Your task to perform on an android device: install app "TextNow: Call + Text Unlimited" Image 0: 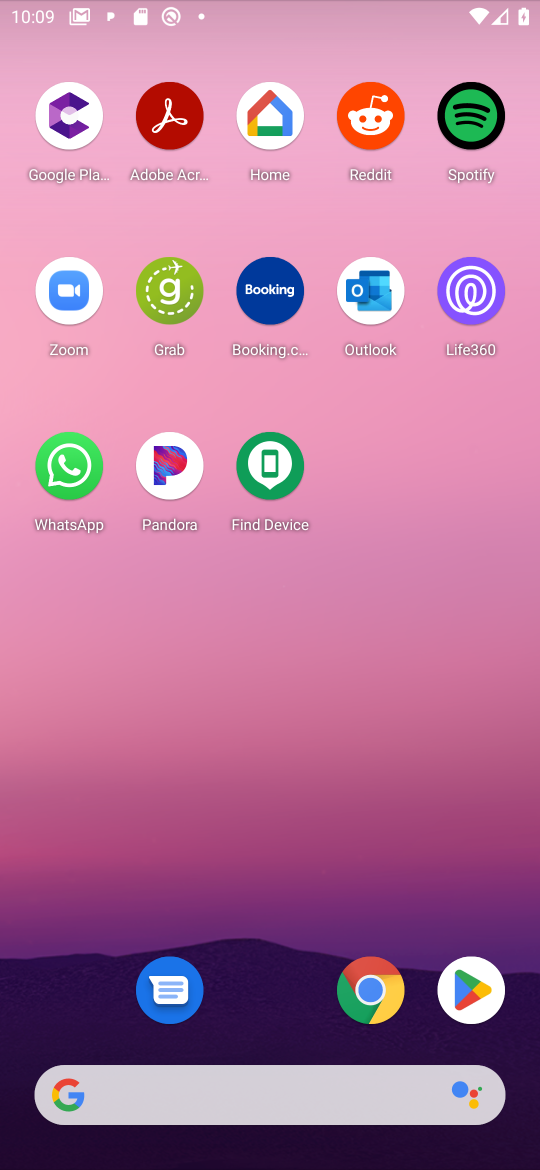
Step 0: press home button
Your task to perform on an android device: install app "TextNow: Call + Text Unlimited" Image 1: 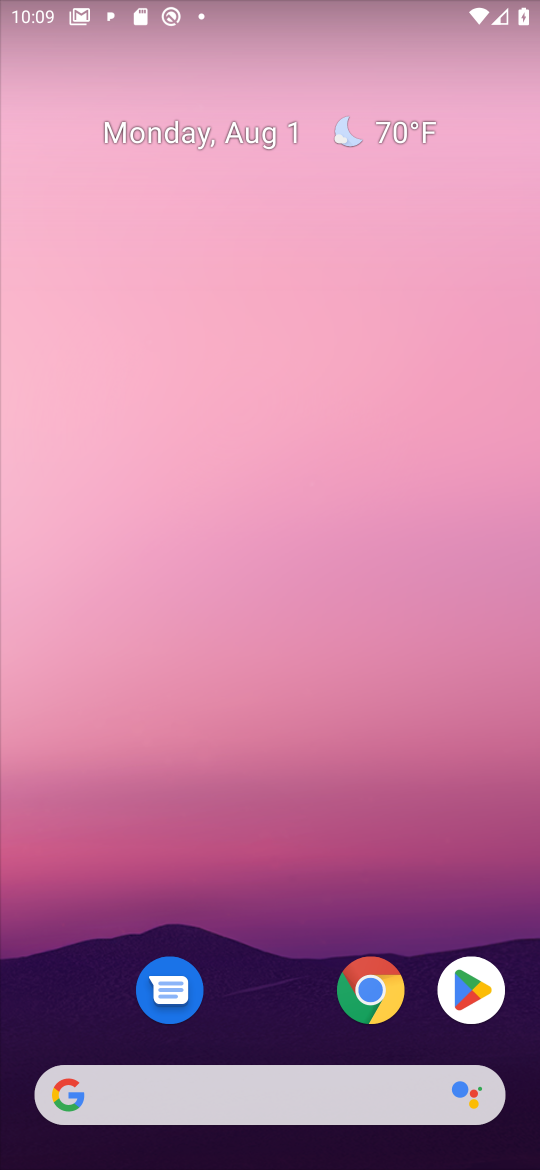
Step 1: click (473, 1009)
Your task to perform on an android device: install app "TextNow: Call + Text Unlimited" Image 2: 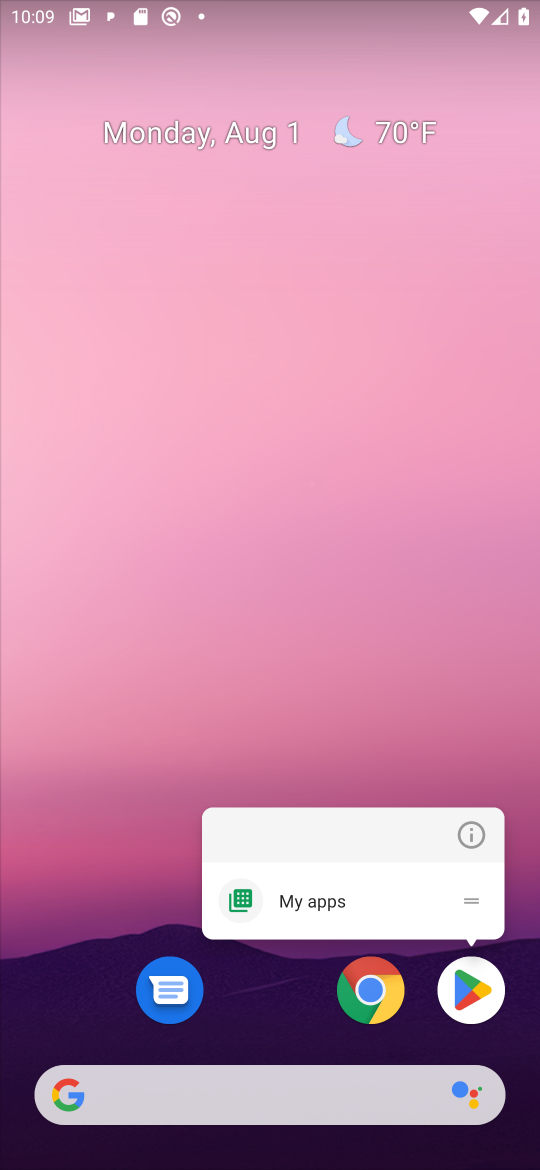
Step 2: click (460, 1000)
Your task to perform on an android device: install app "TextNow: Call + Text Unlimited" Image 3: 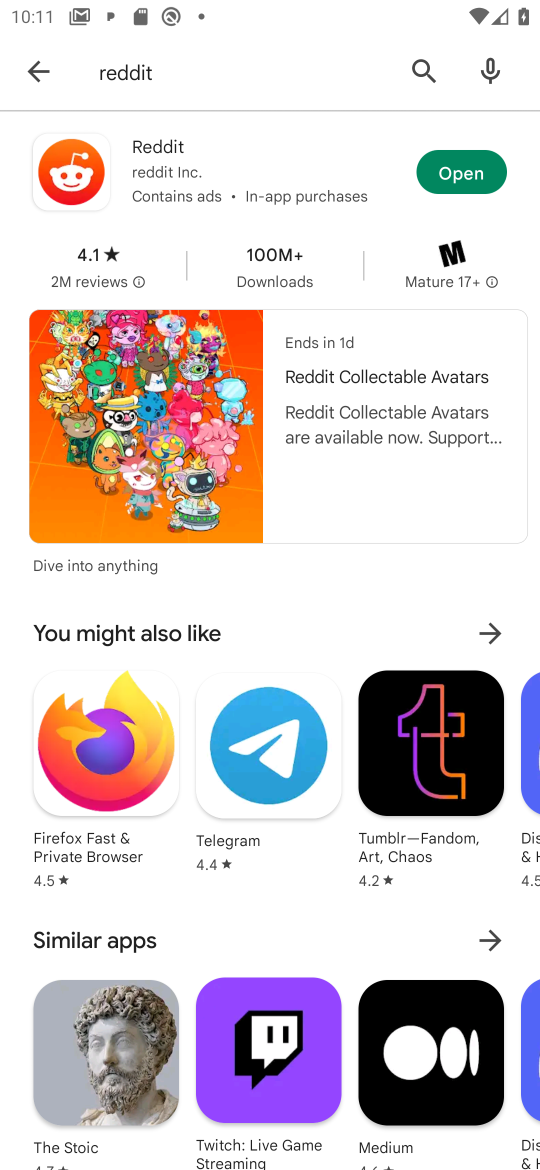
Step 3: click (428, 57)
Your task to perform on an android device: install app "TextNow: Call + Text Unlimited" Image 4: 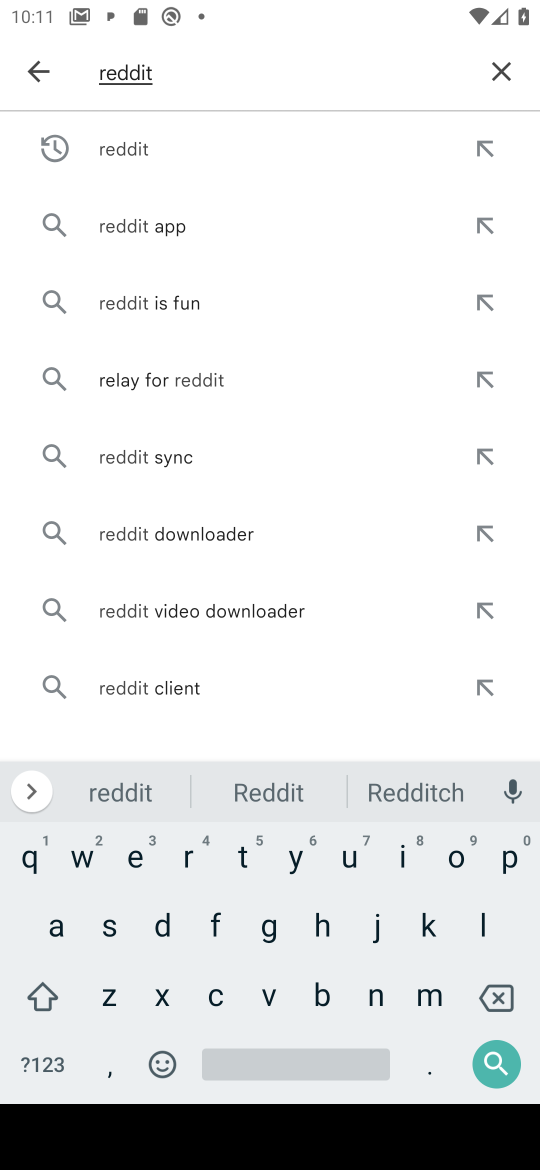
Step 4: click (506, 69)
Your task to perform on an android device: install app "TextNow: Call + Text Unlimited" Image 5: 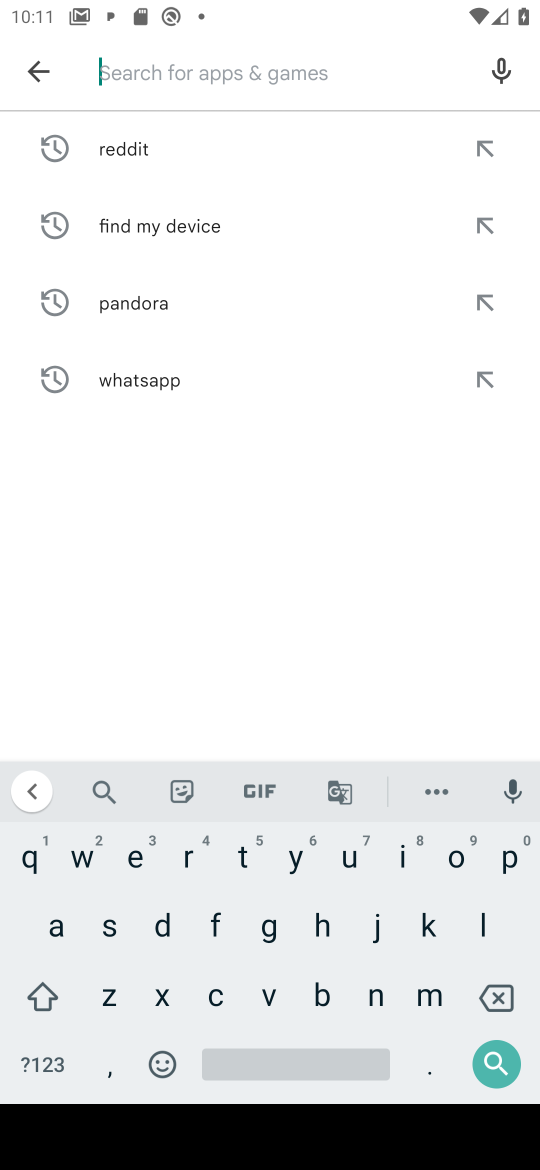
Step 5: click (244, 856)
Your task to perform on an android device: install app "TextNow: Call + Text Unlimited" Image 6: 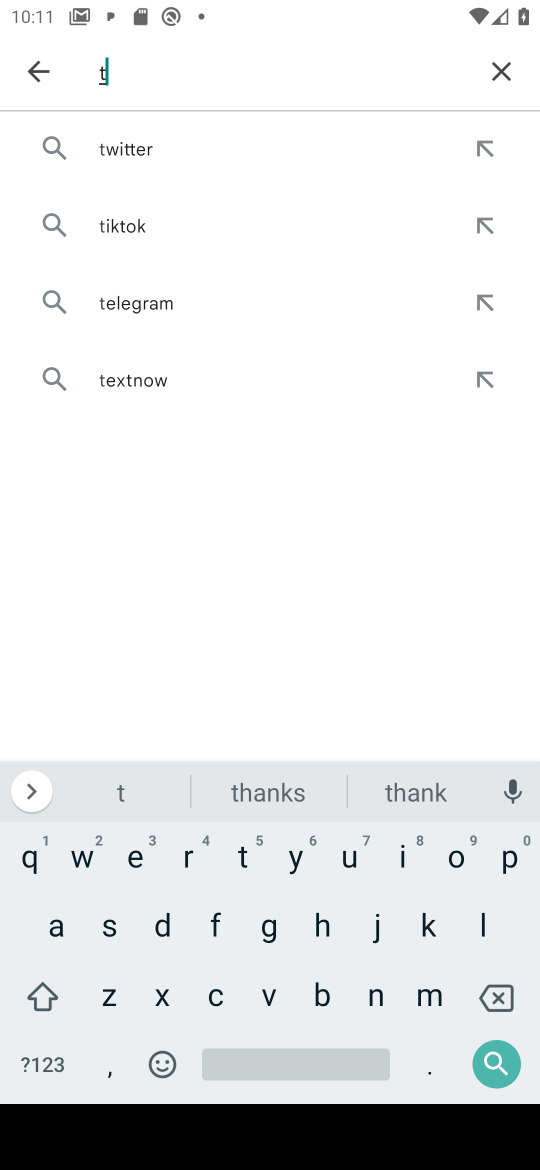
Step 6: click (142, 850)
Your task to perform on an android device: install app "TextNow: Call + Text Unlimited" Image 7: 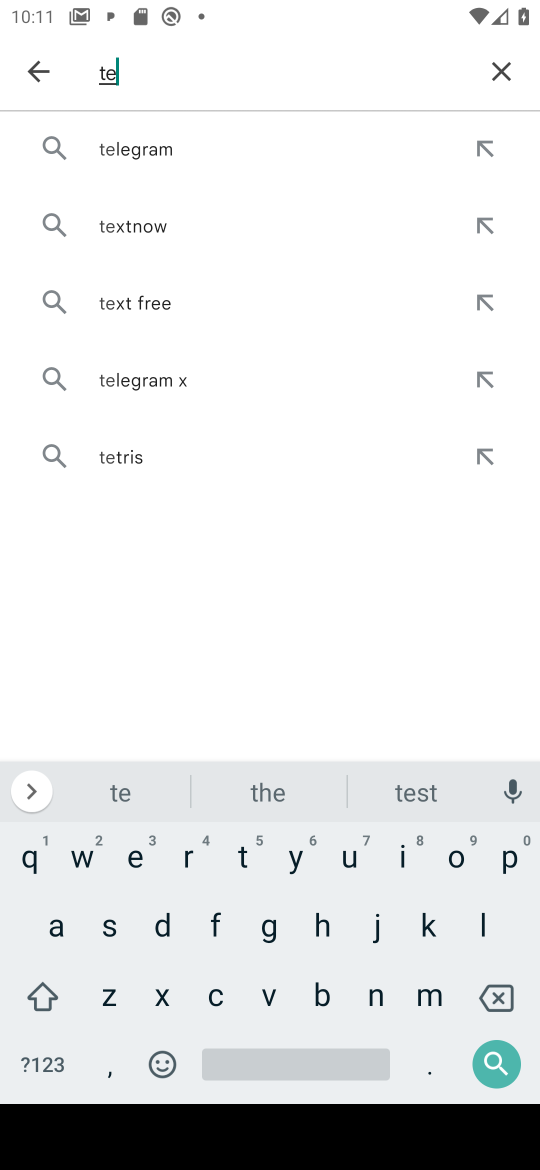
Step 7: click (170, 990)
Your task to perform on an android device: install app "TextNow: Call + Text Unlimited" Image 8: 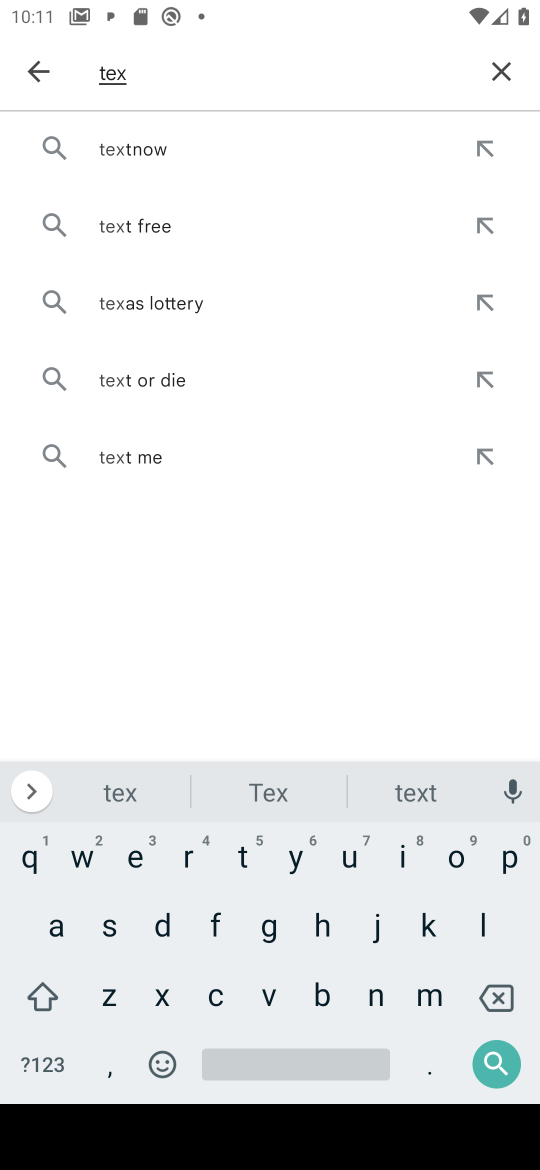
Step 8: click (243, 848)
Your task to perform on an android device: install app "TextNow: Call + Text Unlimited" Image 9: 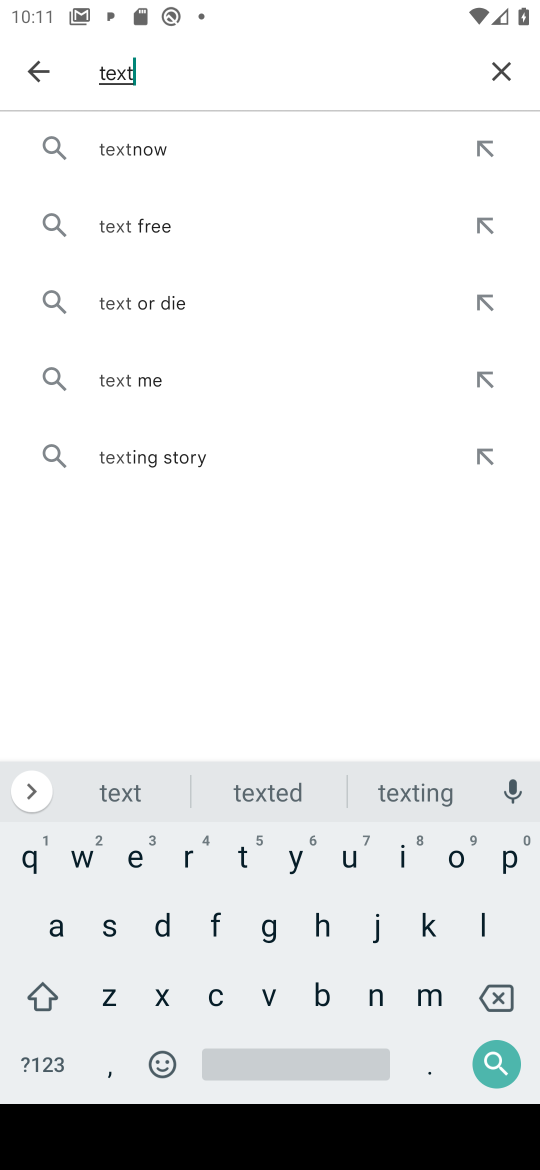
Step 9: click (172, 152)
Your task to perform on an android device: install app "TextNow: Call + Text Unlimited" Image 10: 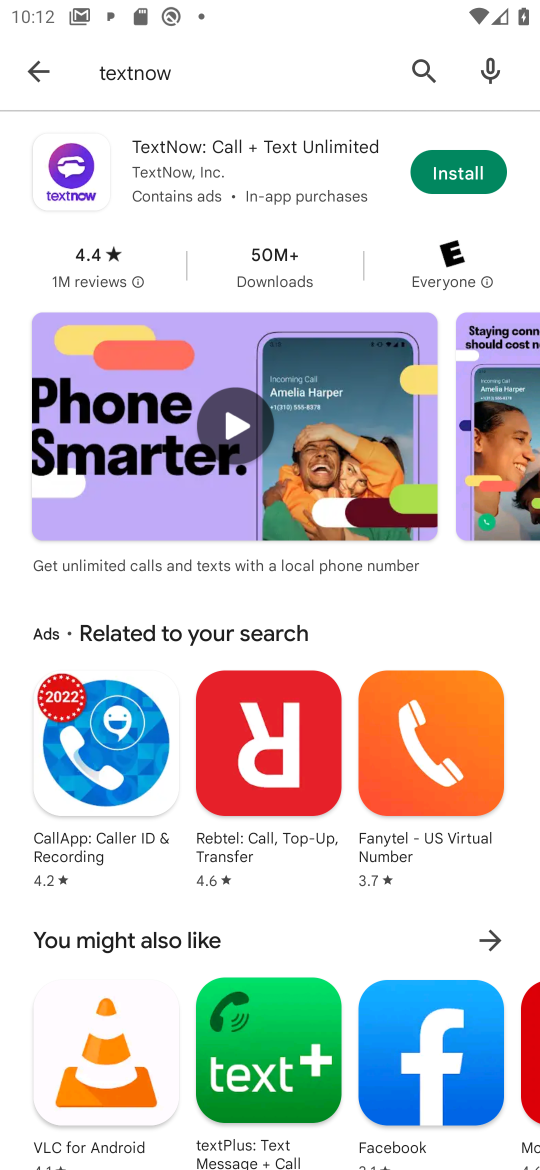
Step 10: click (486, 174)
Your task to perform on an android device: install app "TextNow: Call + Text Unlimited" Image 11: 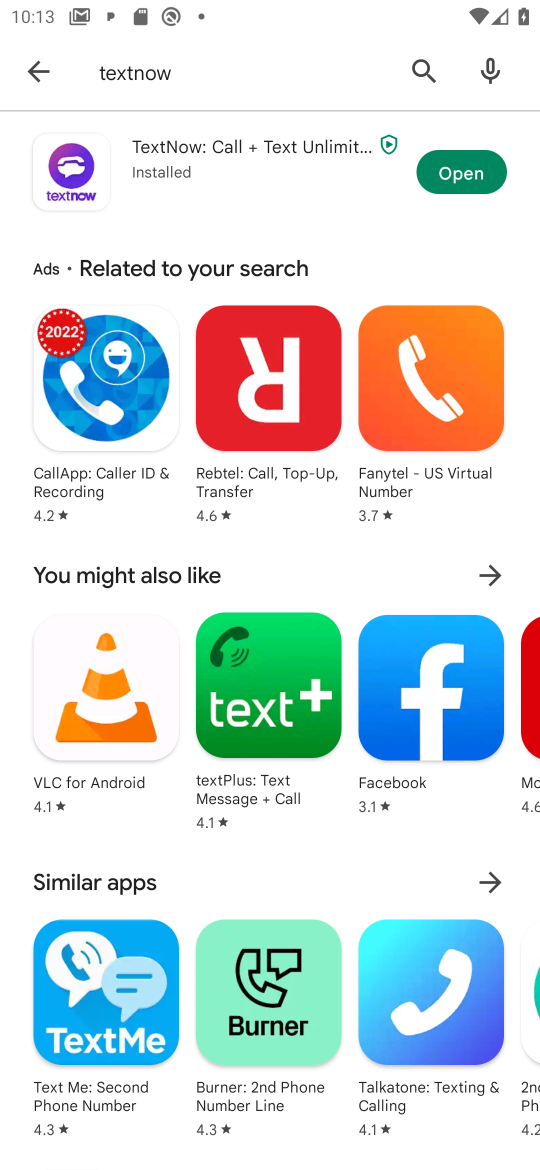
Step 11: task complete